Your task to perform on an android device: add a label to a message in the gmail app Image 0: 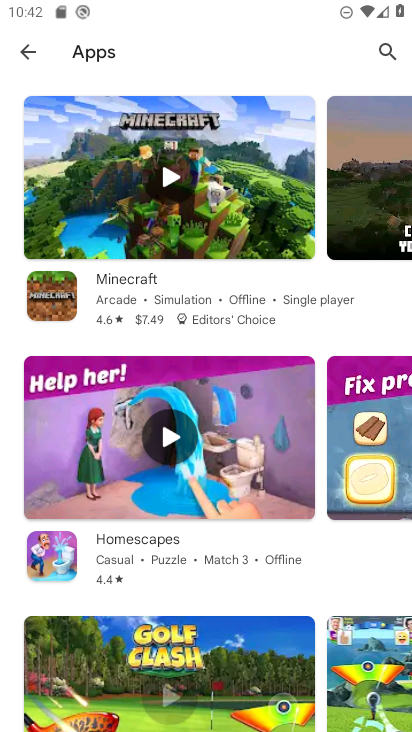
Step 0: drag from (262, 558) to (337, 338)
Your task to perform on an android device: add a label to a message in the gmail app Image 1: 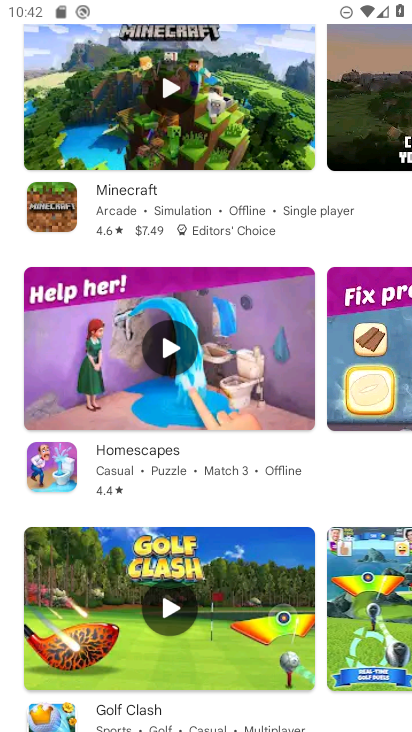
Step 1: press home button
Your task to perform on an android device: add a label to a message in the gmail app Image 2: 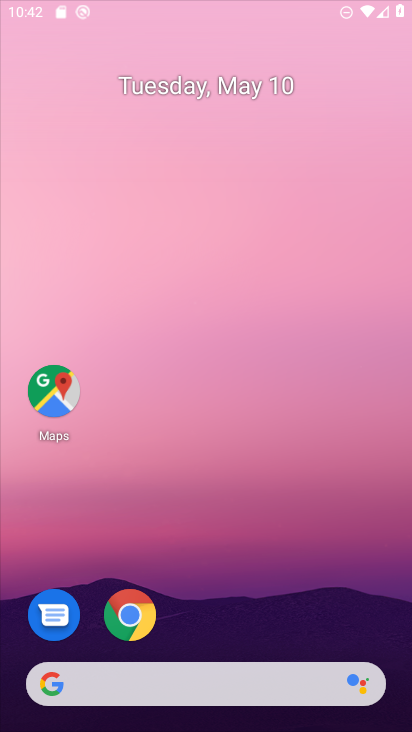
Step 2: drag from (204, 580) to (307, 226)
Your task to perform on an android device: add a label to a message in the gmail app Image 3: 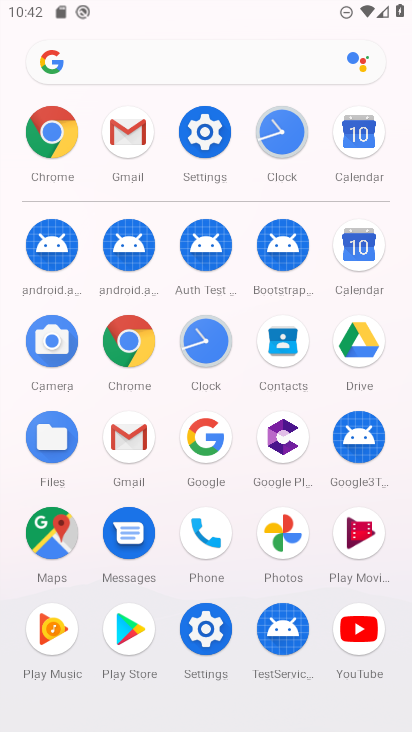
Step 3: click (113, 445)
Your task to perform on an android device: add a label to a message in the gmail app Image 4: 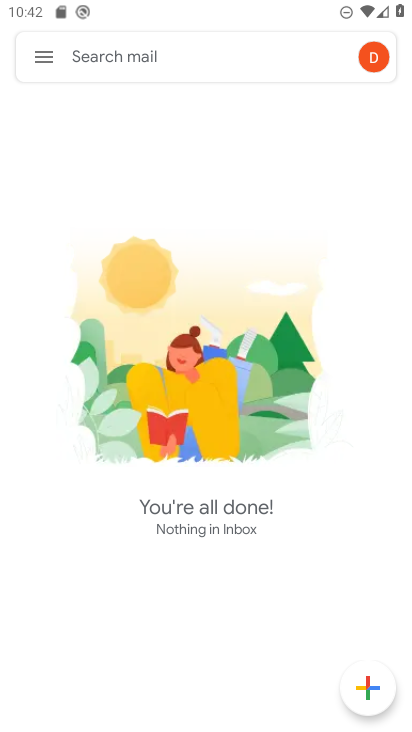
Step 4: click (48, 59)
Your task to perform on an android device: add a label to a message in the gmail app Image 5: 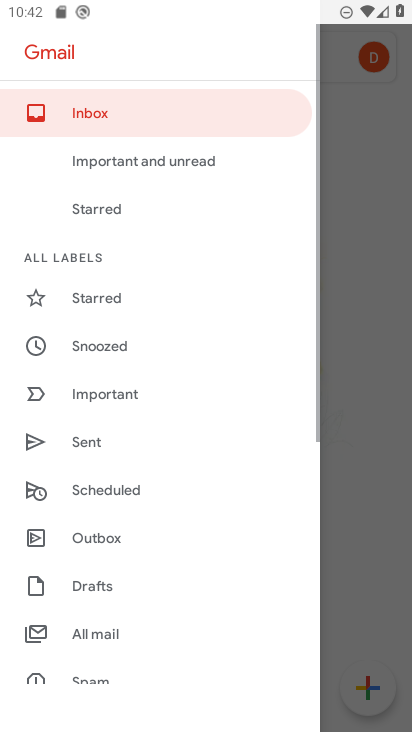
Step 5: click (129, 115)
Your task to perform on an android device: add a label to a message in the gmail app Image 6: 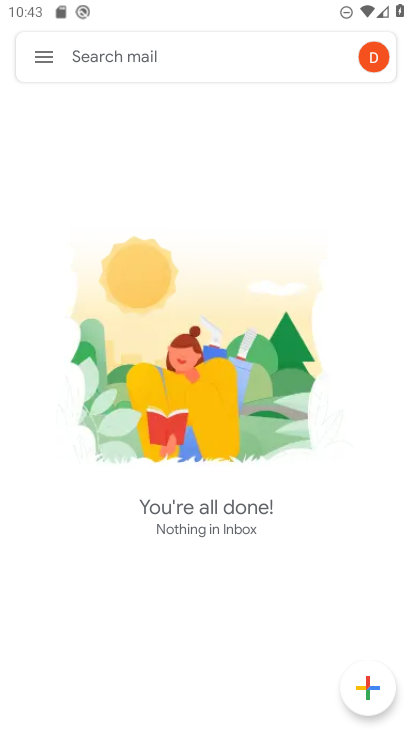
Step 6: task complete